Your task to perform on an android device: turn on the 12-hour format for clock Image 0: 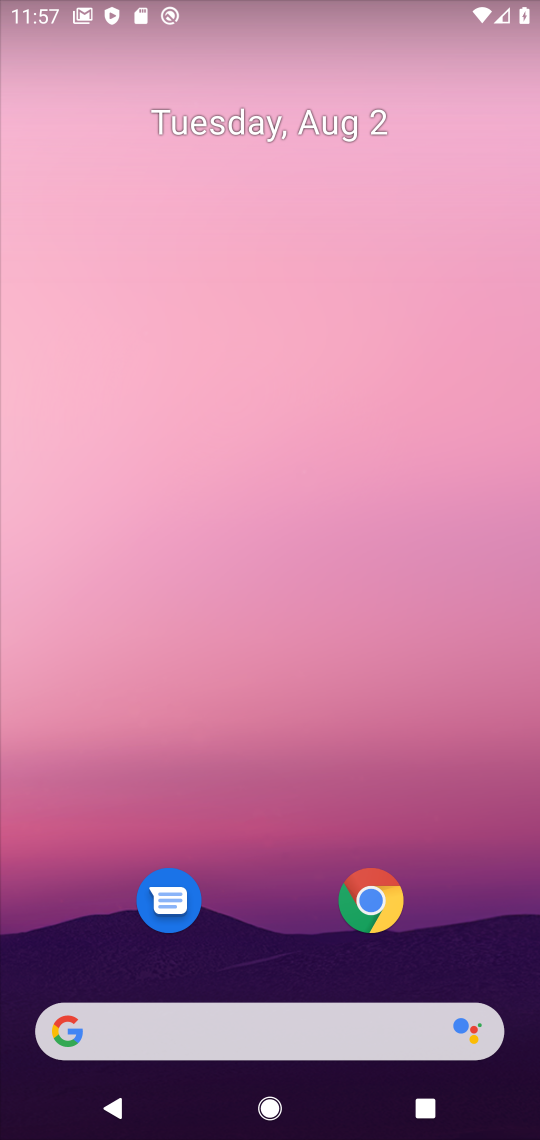
Step 0: drag from (272, 705) to (240, 17)
Your task to perform on an android device: turn on the 12-hour format for clock Image 1: 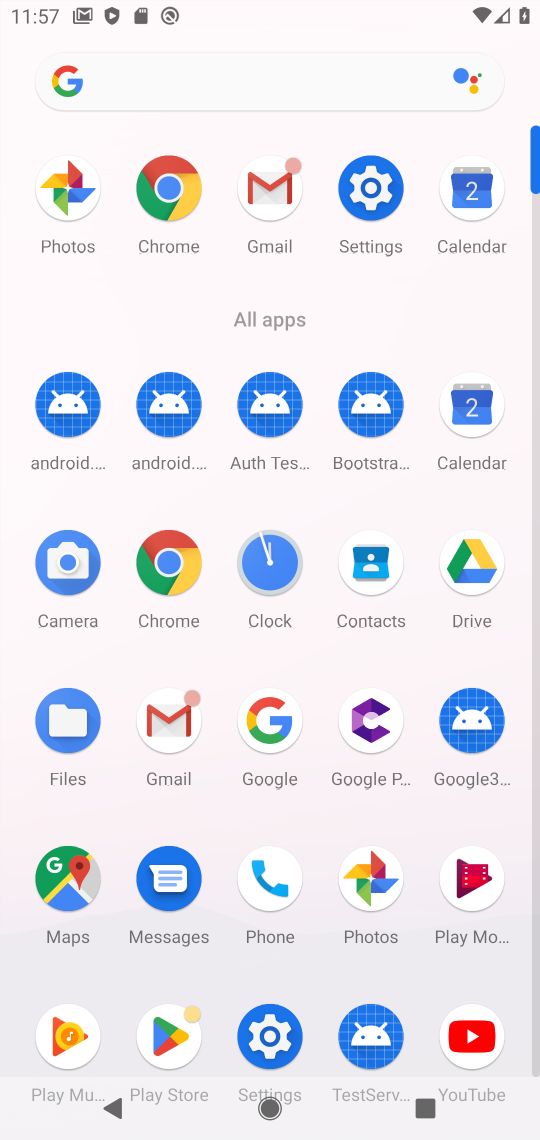
Step 1: click (283, 552)
Your task to perform on an android device: turn on the 12-hour format for clock Image 2: 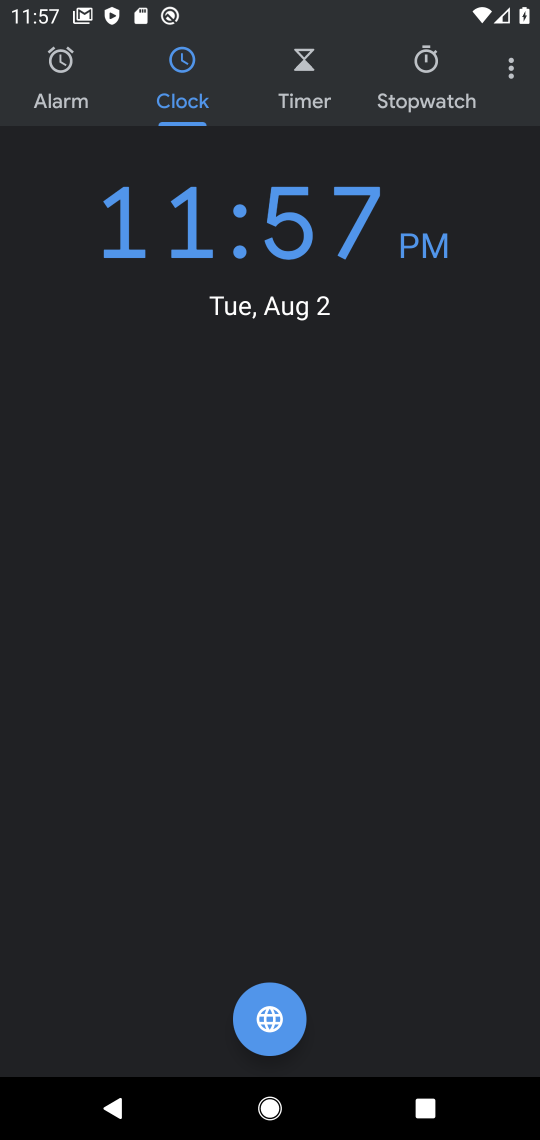
Step 2: click (494, 59)
Your task to perform on an android device: turn on the 12-hour format for clock Image 3: 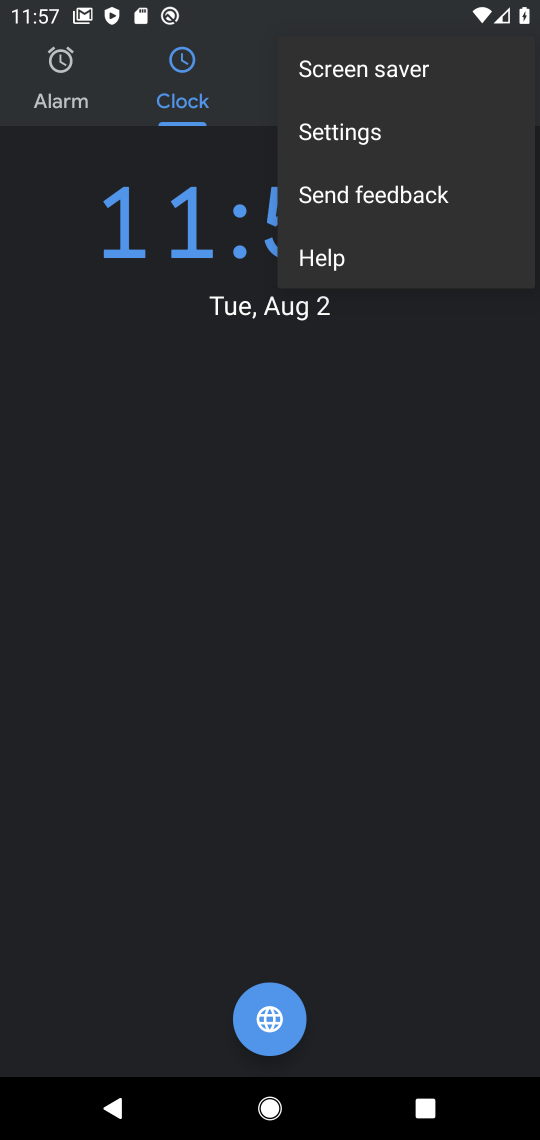
Step 3: click (344, 139)
Your task to perform on an android device: turn on the 12-hour format for clock Image 4: 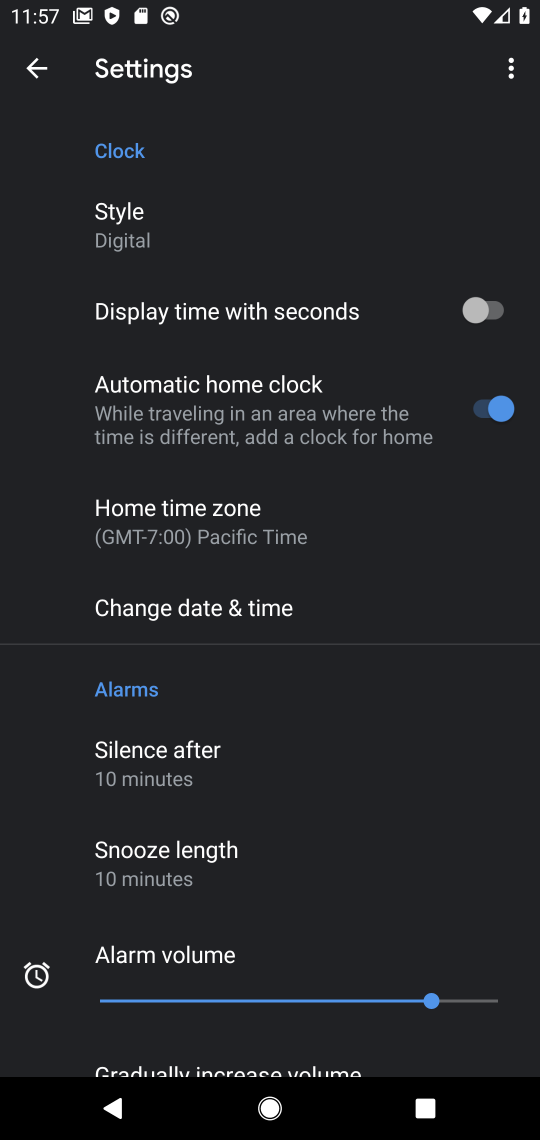
Step 4: click (227, 616)
Your task to perform on an android device: turn on the 12-hour format for clock Image 5: 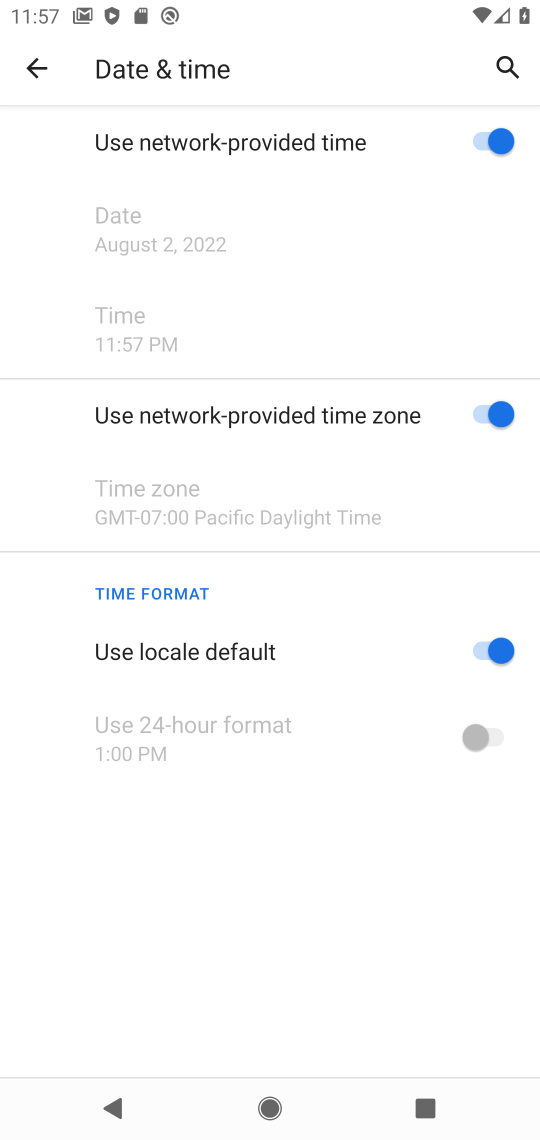
Step 5: task complete